Your task to perform on an android device: Set the phone to "Do not disturb". Image 0: 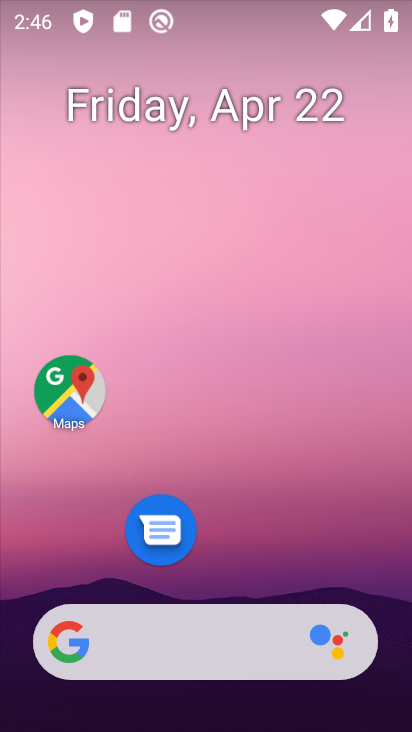
Step 0: drag from (250, 555) to (276, 6)
Your task to perform on an android device: Set the phone to "Do not disturb". Image 1: 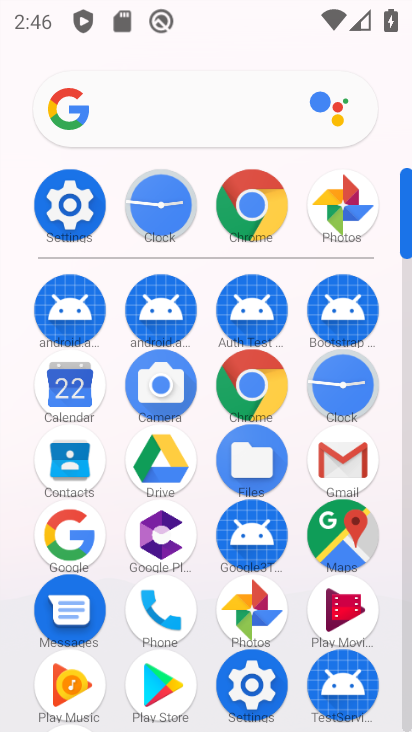
Step 1: drag from (232, 141) to (232, 23)
Your task to perform on an android device: Set the phone to "Do not disturb". Image 2: 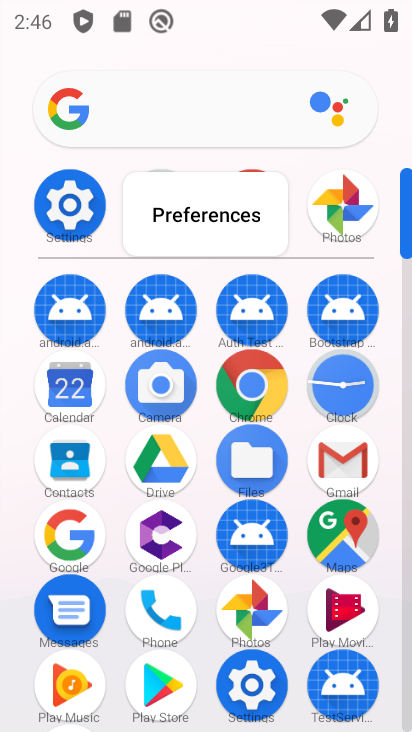
Step 2: click (65, 207)
Your task to perform on an android device: Set the phone to "Do not disturb". Image 3: 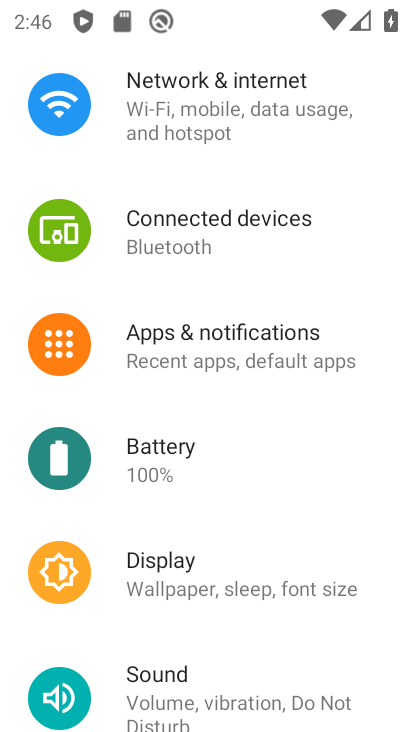
Step 3: drag from (249, 481) to (249, 238)
Your task to perform on an android device: Set the phone to "Do not disturb". Image 4: 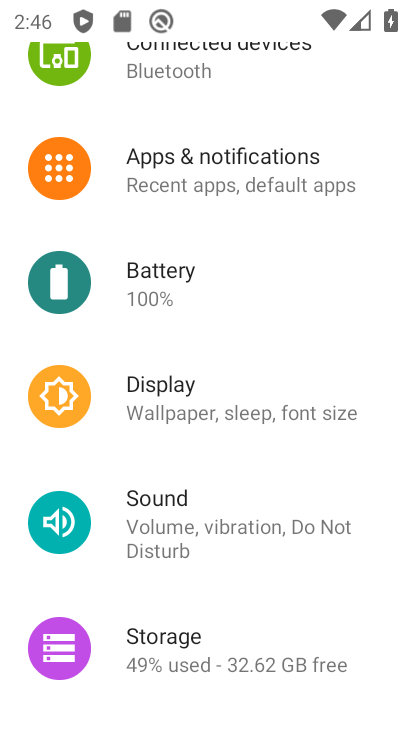
Step 4: drag from (158, 509) to (143, 184)
Your task to perform on an android device: Set the phone to "Do not disturb". Image 5: 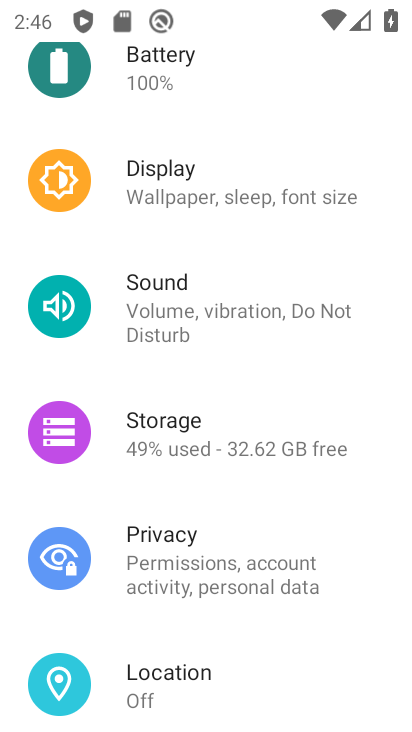
Step 5: click (164, 292)
Your task to perform on an android device: Set the phone to "Do not disturb". Image 6: 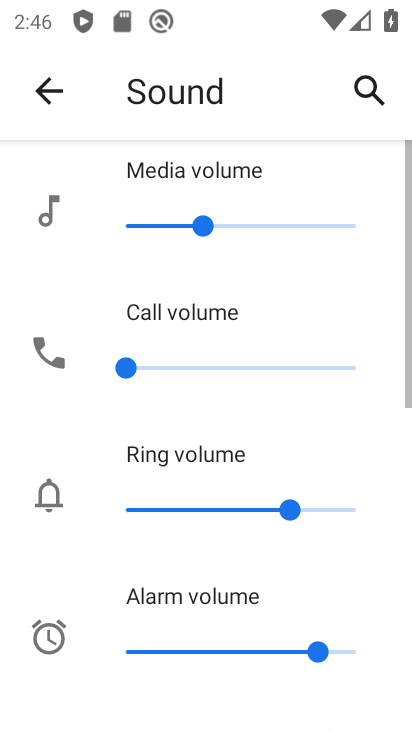
Step 6: drag from (228, 511) to (213, 104)
Your task to perform on an android device: Set the phone to "Do not disturb". Image 7: 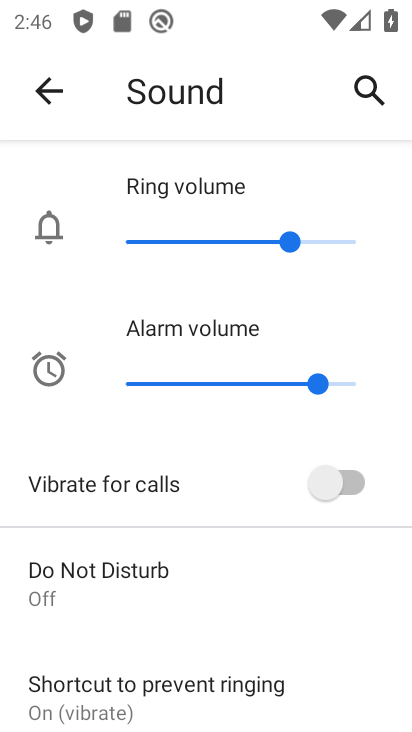
Step 7: click (93, 572)
Your task to perform on an android device: Set the phone to "Do not disturb". Image 8: 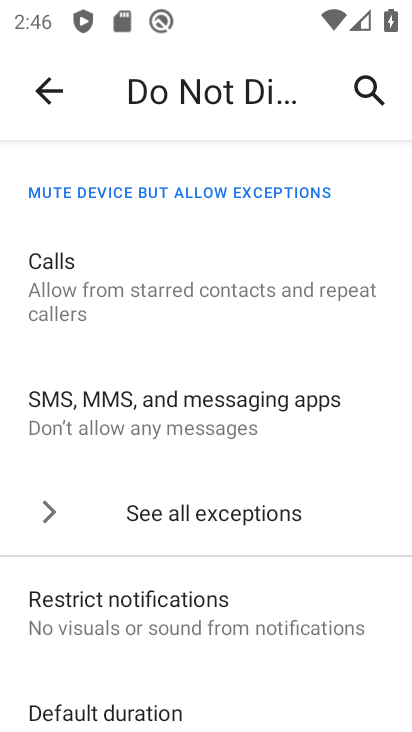
Step 8: drag from (153, 538) to (223, 133)
Your task to perform on an android device: Set the phone to "Do not disturb". Image 9: 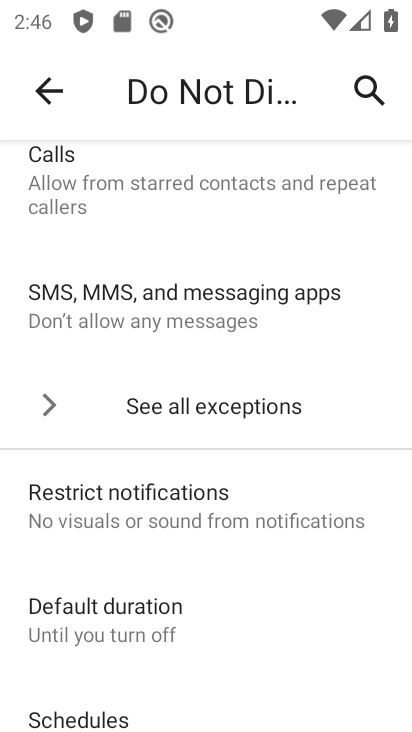
Step 9: drag from (134, 600) to (164, 85)
Your task to perform on an android device: Set the phone to "Do not disturb". Image 10: 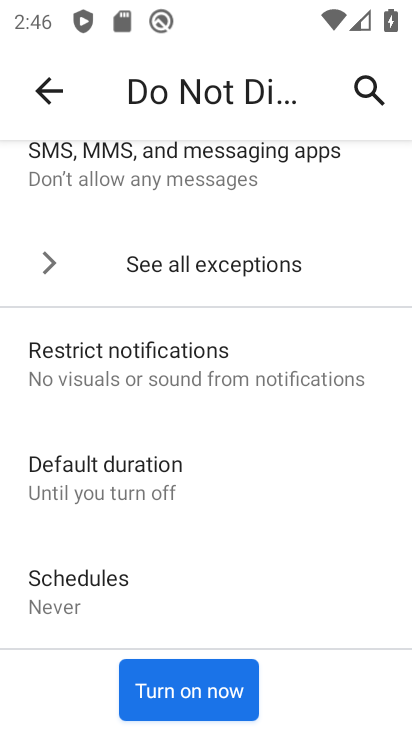
Step 10: click (190, 687)
Your task to perform on an android device: Set the phone to "Do not disturb". Image 11: 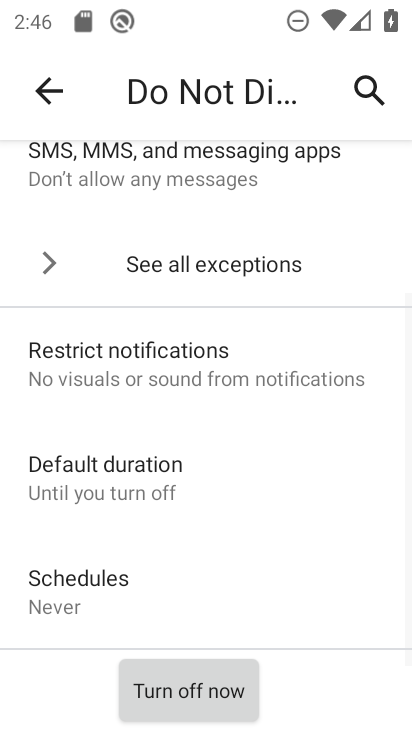
Step 11: task complete